Your task to perform on an android device: open device folders in google photos Image 0: 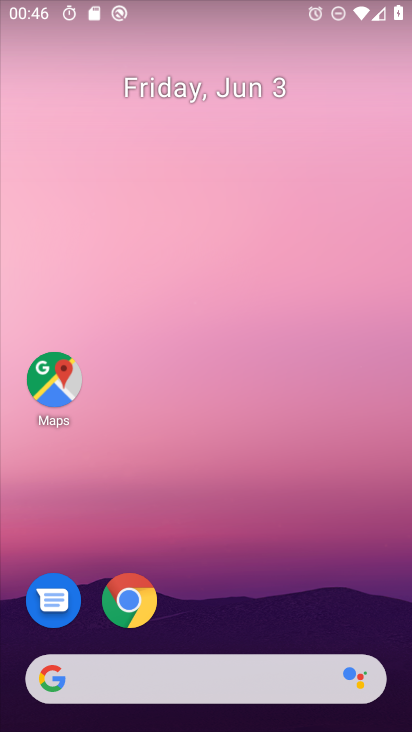
Step 0: drag from (190, 589) to (215, 51)
Your task to perform on an android device: open device folders in google photos Image 1: 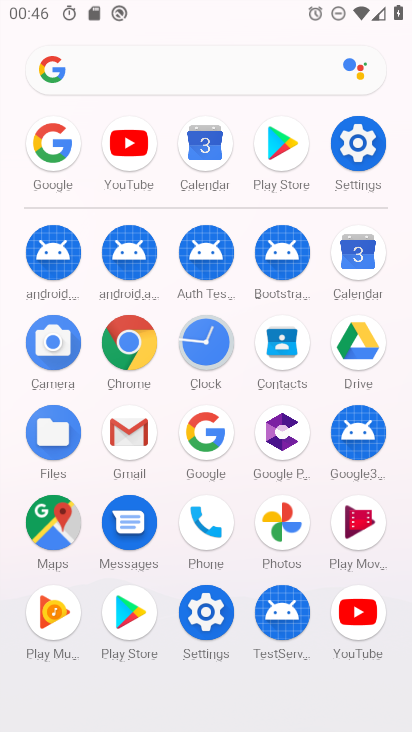
Step 1: click (283, 526)
Your task to perform on an android device: open device folders in google photos Image 2: 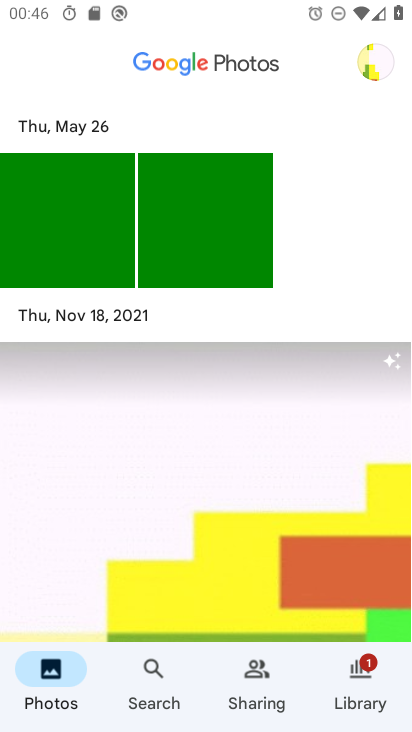
Step 2: click (352, 685)
Your task to perform on an android device: open device folders in google photos Image 3: 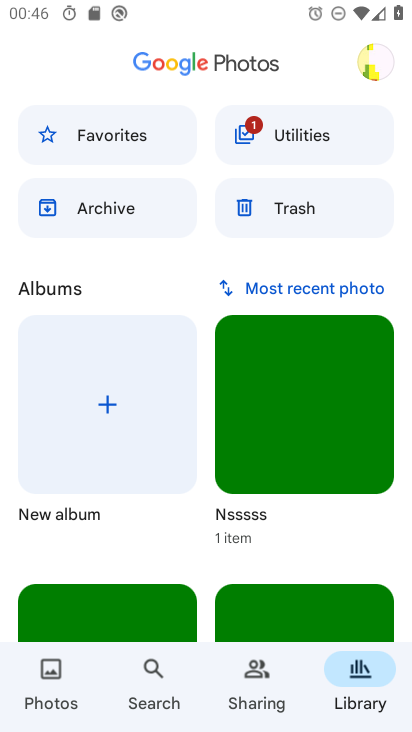
Step 3: task complete